Your task to perform on an android device: turn on the 12-hour format for clock Image 0: 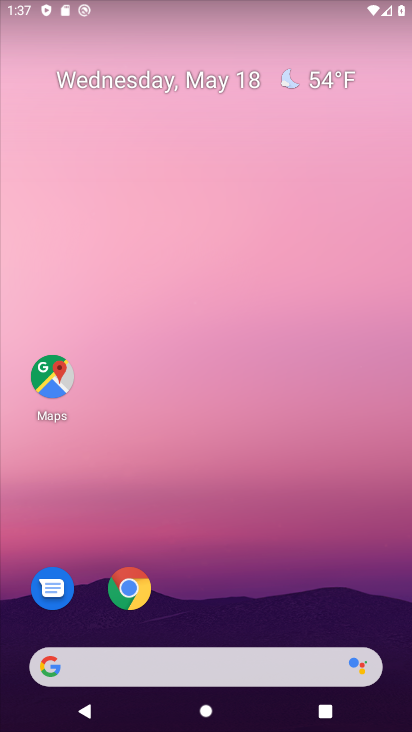
Step 0: drag from (188, 665) to (149, 16)
Your task to perform on an android device: turn on the 12-hour format for clock Image 1: 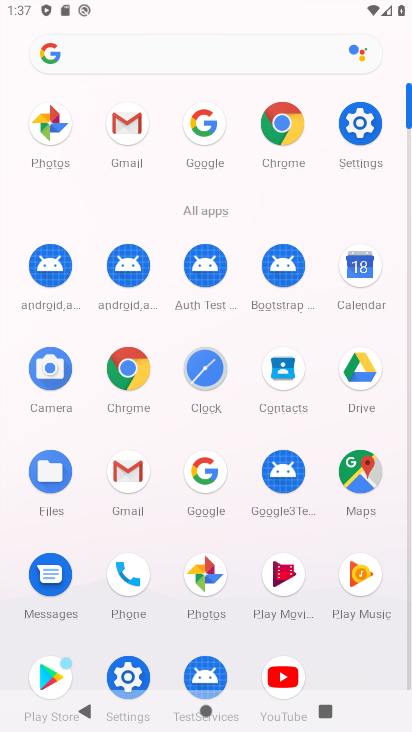
Step 1: click (128, 665)
Your task to perform on an android device: turn on the 12-hour format for clock Image 2: 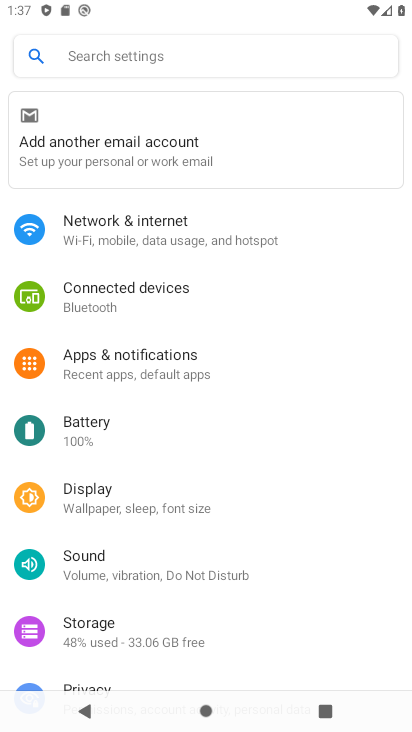
Step 2: drag from (160, 617) to (149, 92)
Your task to perform on an android device: turn on the 12-hour format for clock Image 3: 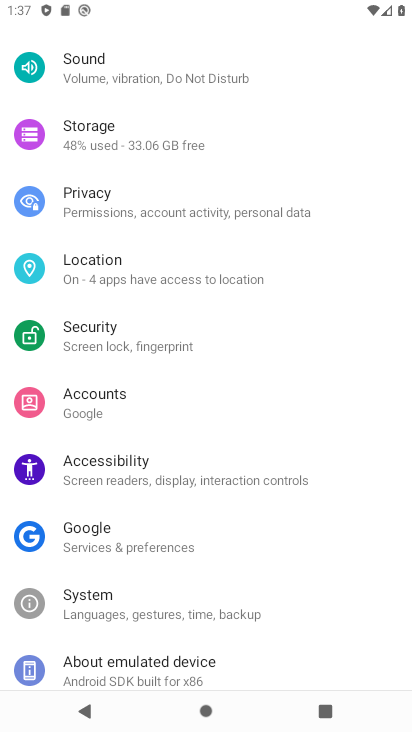
Step 3: click (125, 602)
Your task to perform on an android device: turn on the 12-hour format for clock Image 4: 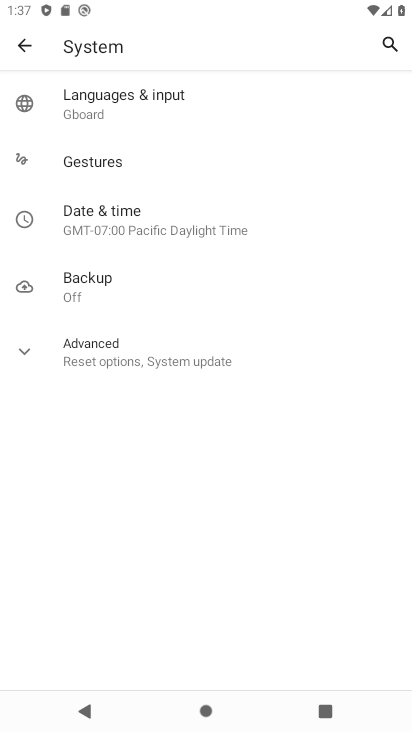
Step 4: click (140, 224)
Your task to perform on an android device: turn on the 12-hour format for clock Image 5: 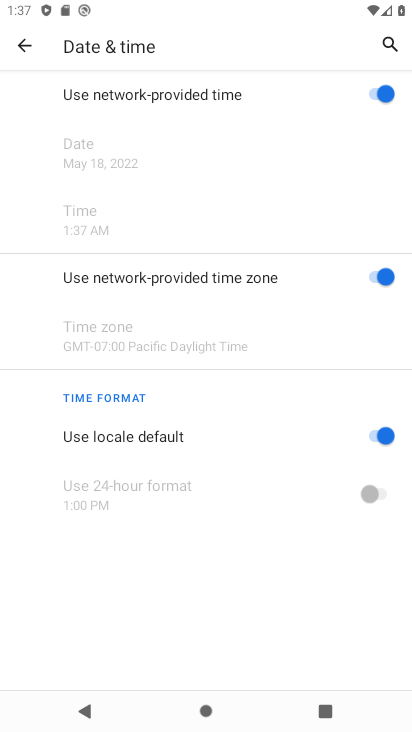
Step 5: task complete